Your task to perform on an android device: open chrome privacy settings Image 0: 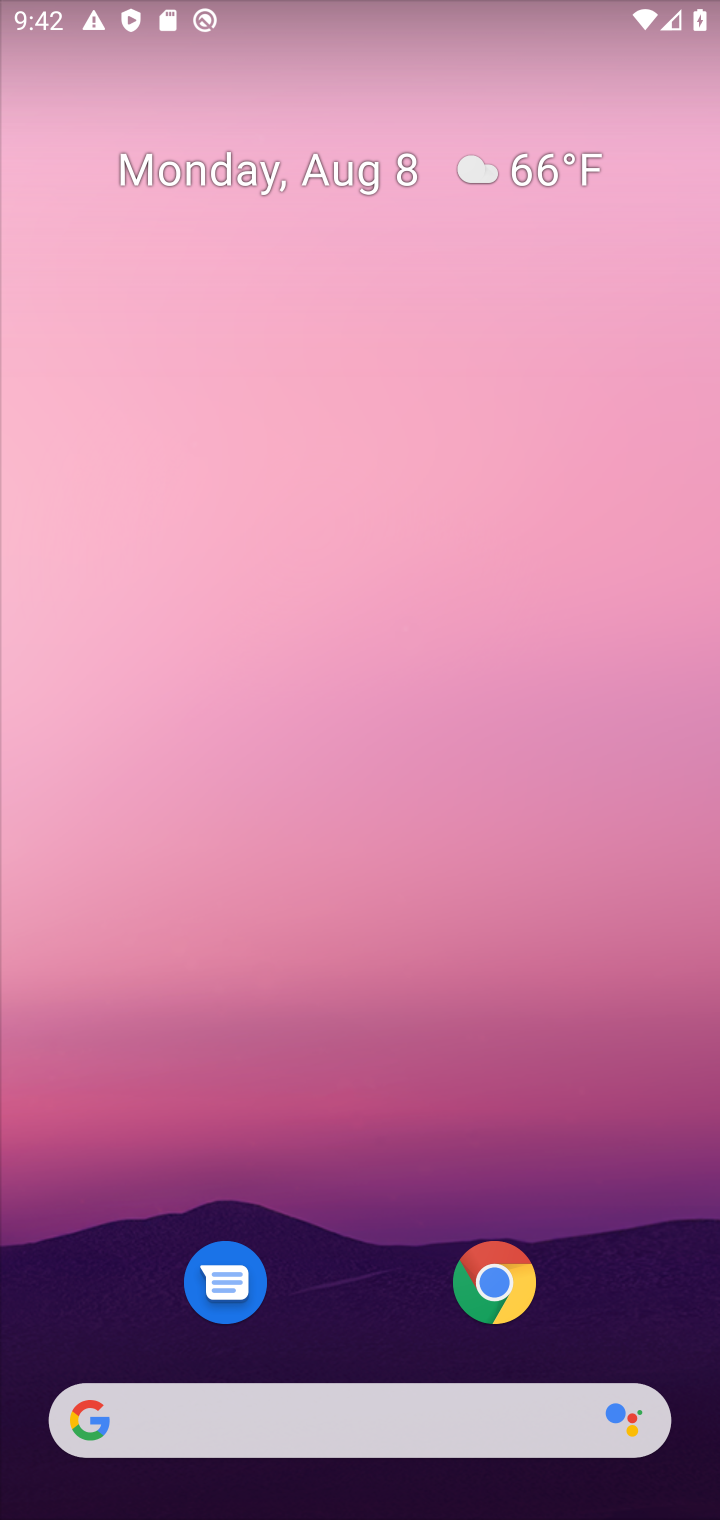
Step 0: click (483, 1276)
Your task to perform on an android device: open chrome privacy settings Image 1: 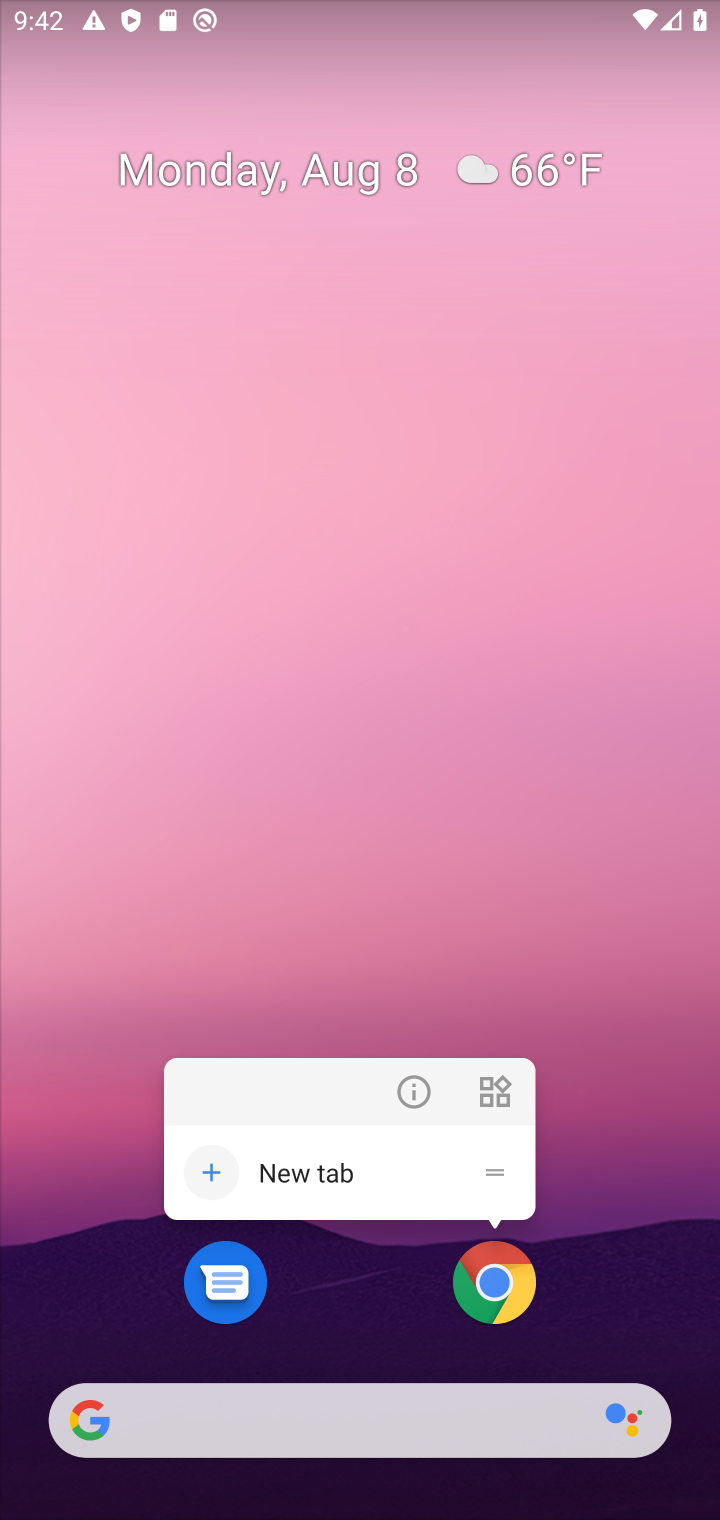
Step 1: click (483, 1276)
Your task to perform on an android device: open chrome privacy settings Image 2: 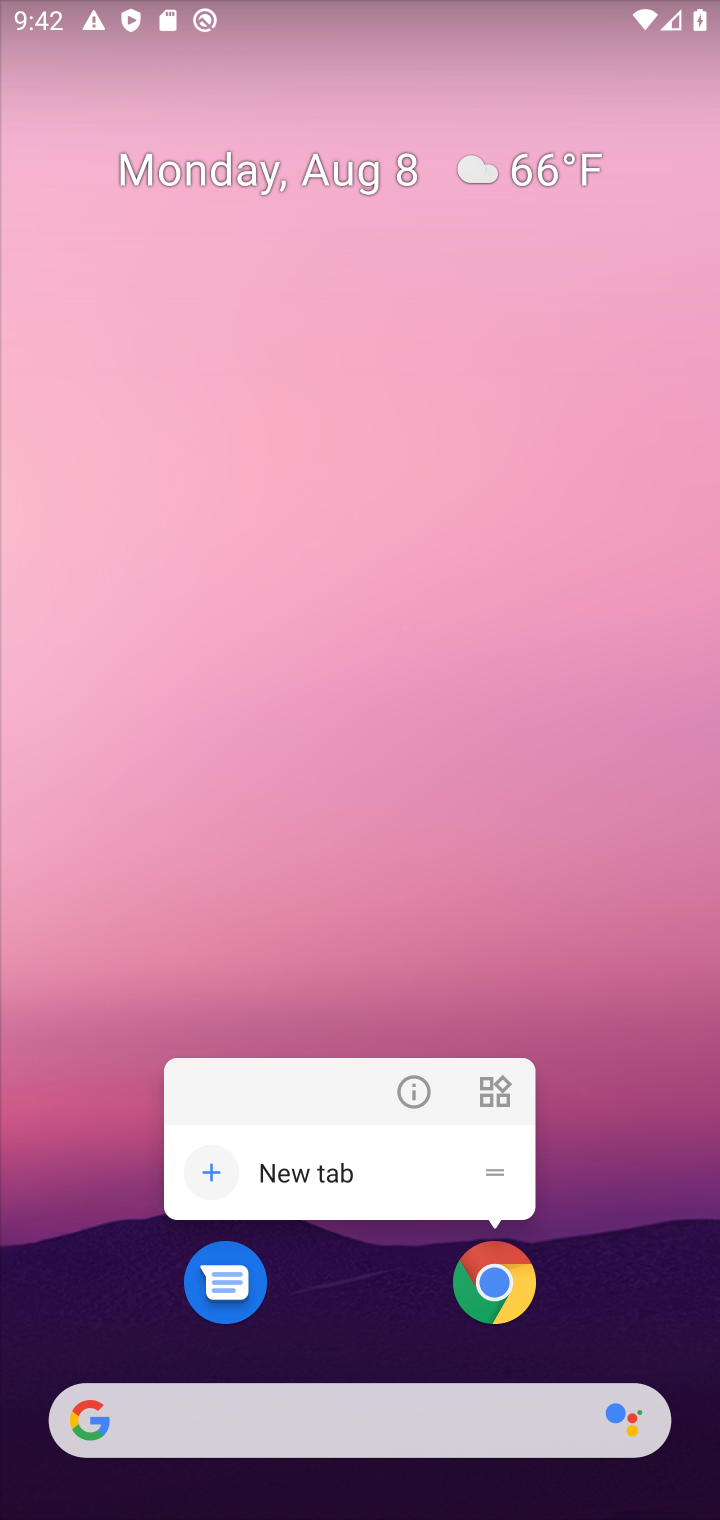
Step 2: click (483, 1276)
Your task to perform on an android device: open chrome privacy settings Image 3: 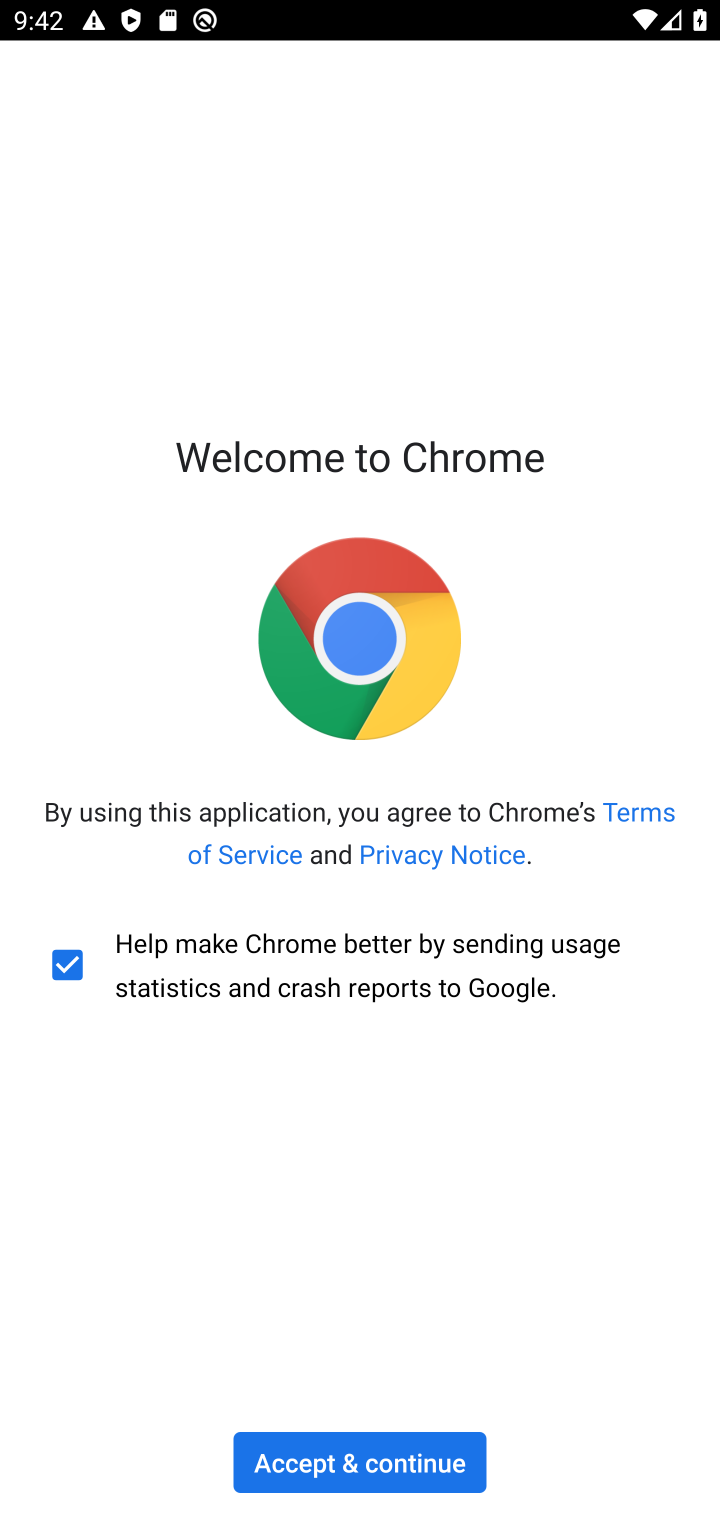
Step 3: click (400, 1457)
Your task to perform on an android device: open chrome privacy settings Image 4: 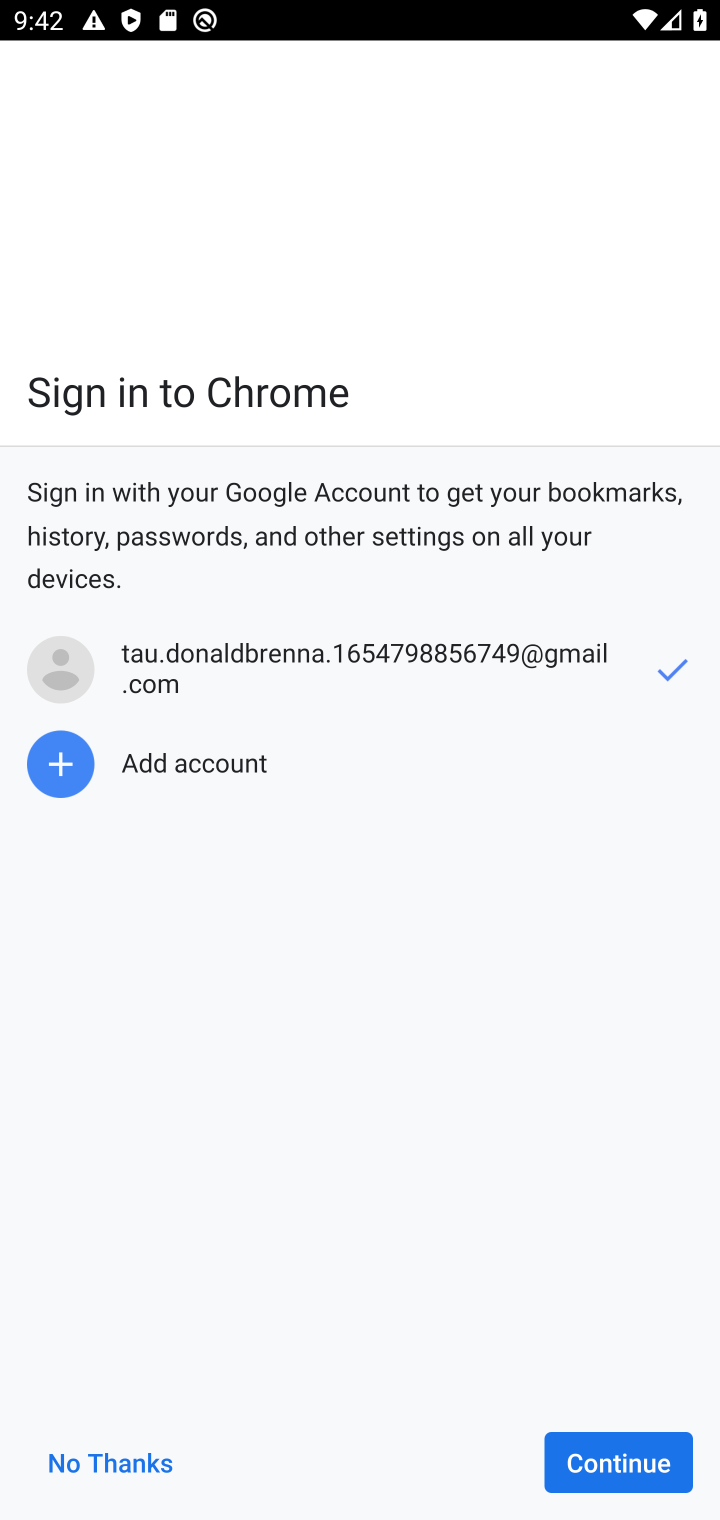
Step 4: click (601, 1453)
Your task to perform on an android device: open chrome privacy settings Image 5: 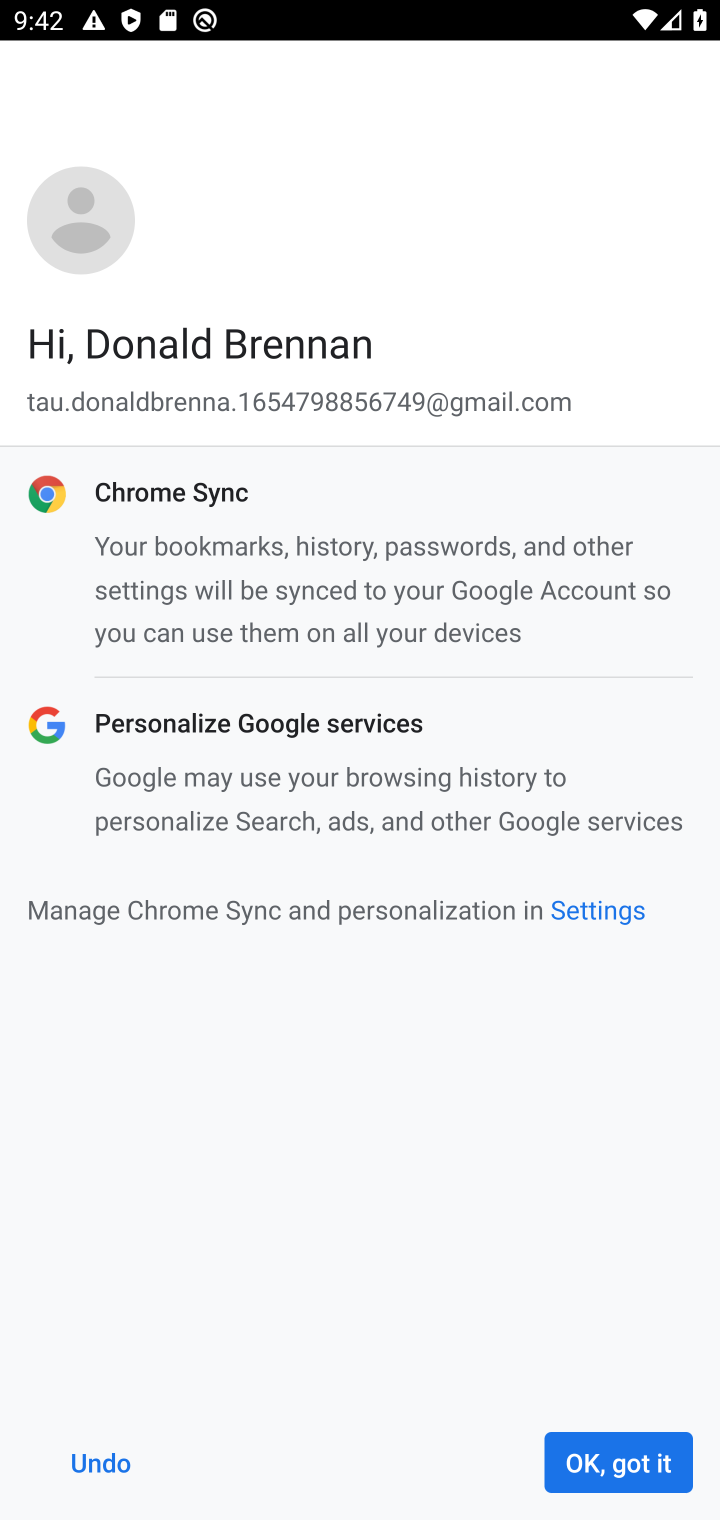
Step 5: click (601, 1453)
Your task to perform on an android device: open chrome privacy settings Image 6: 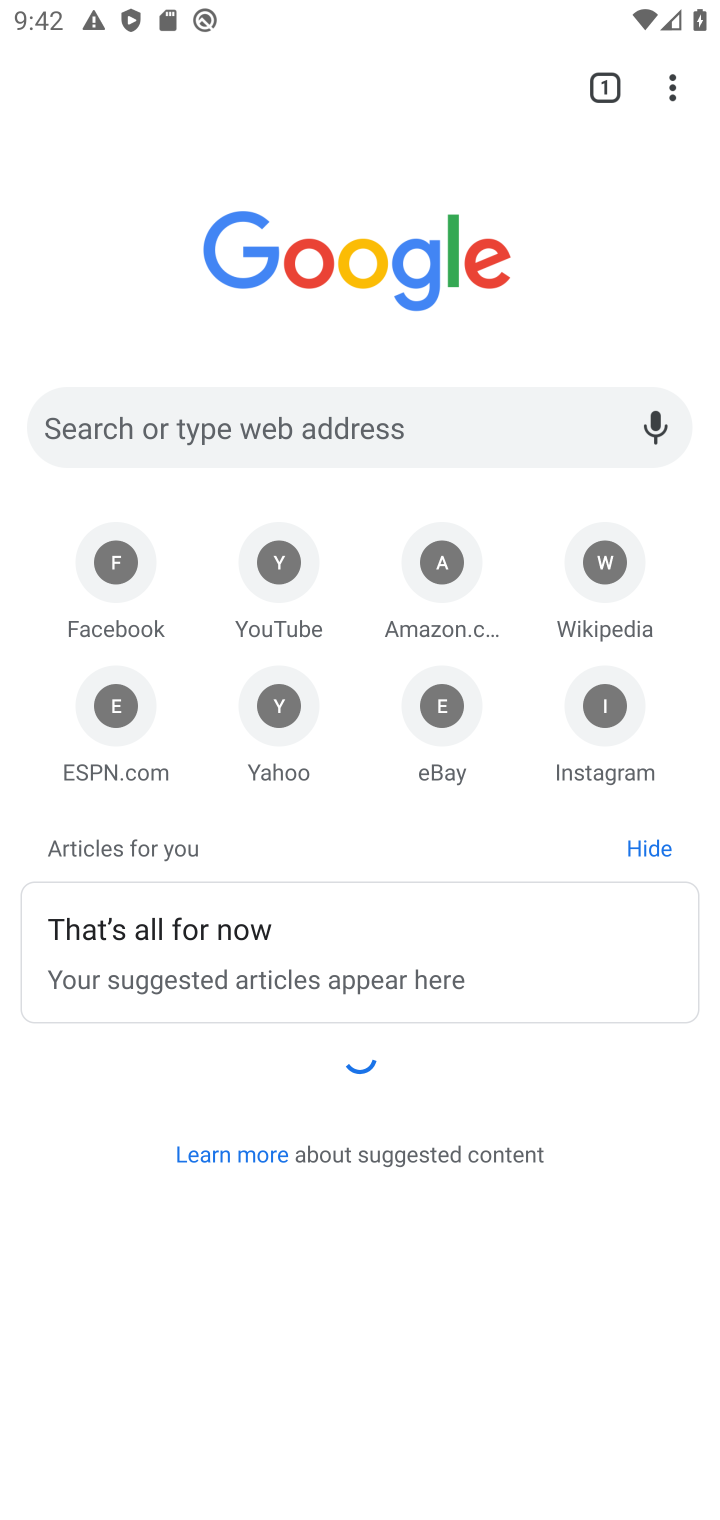
Step 6: click (692, 83)
Your task to perform on an android device: open chrome privacy settings Image 7: 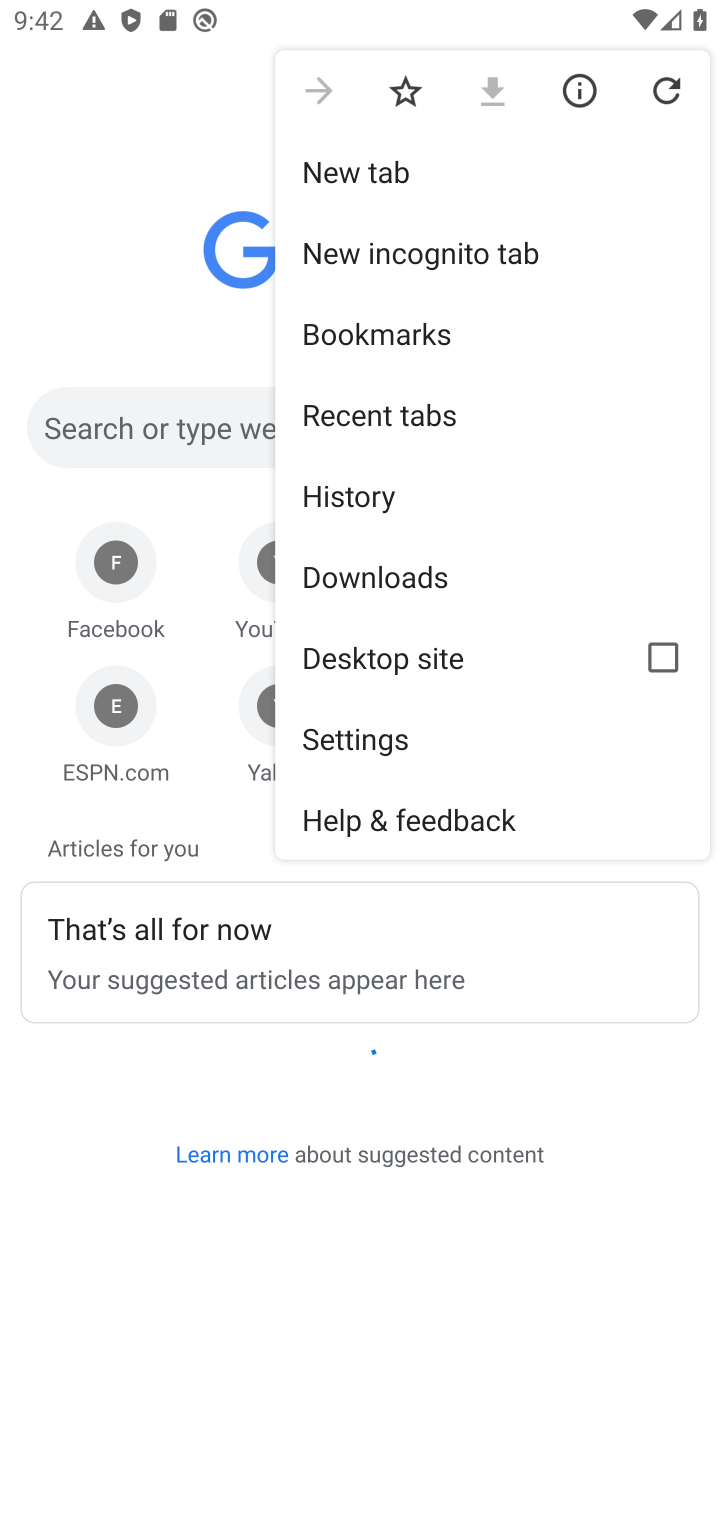
Step 7: click (450, 745)
Your task to perform on an android device: open chrome privacy settings Image 8: 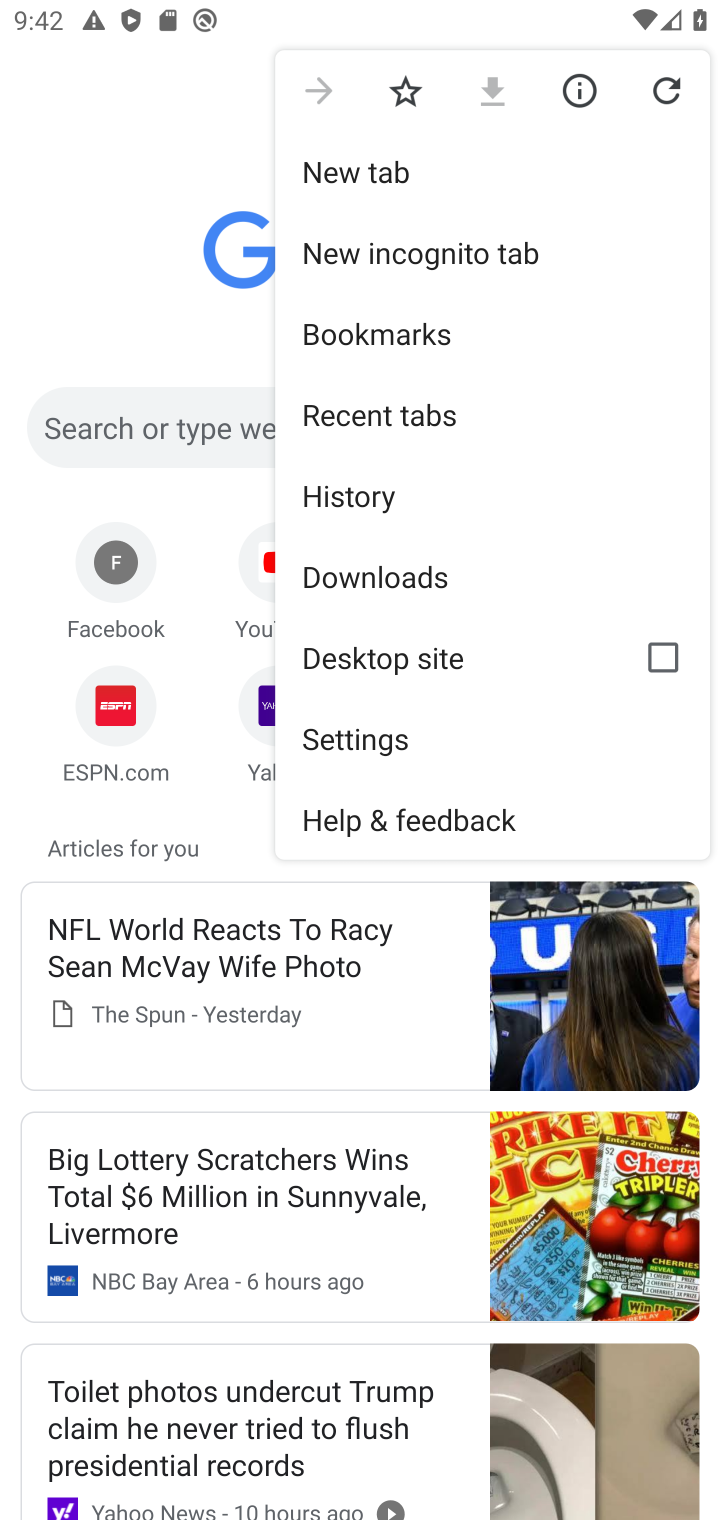
Step 8: click (336, 723)
Your task to perform on an android device: open chrome privacy settings Image 9: 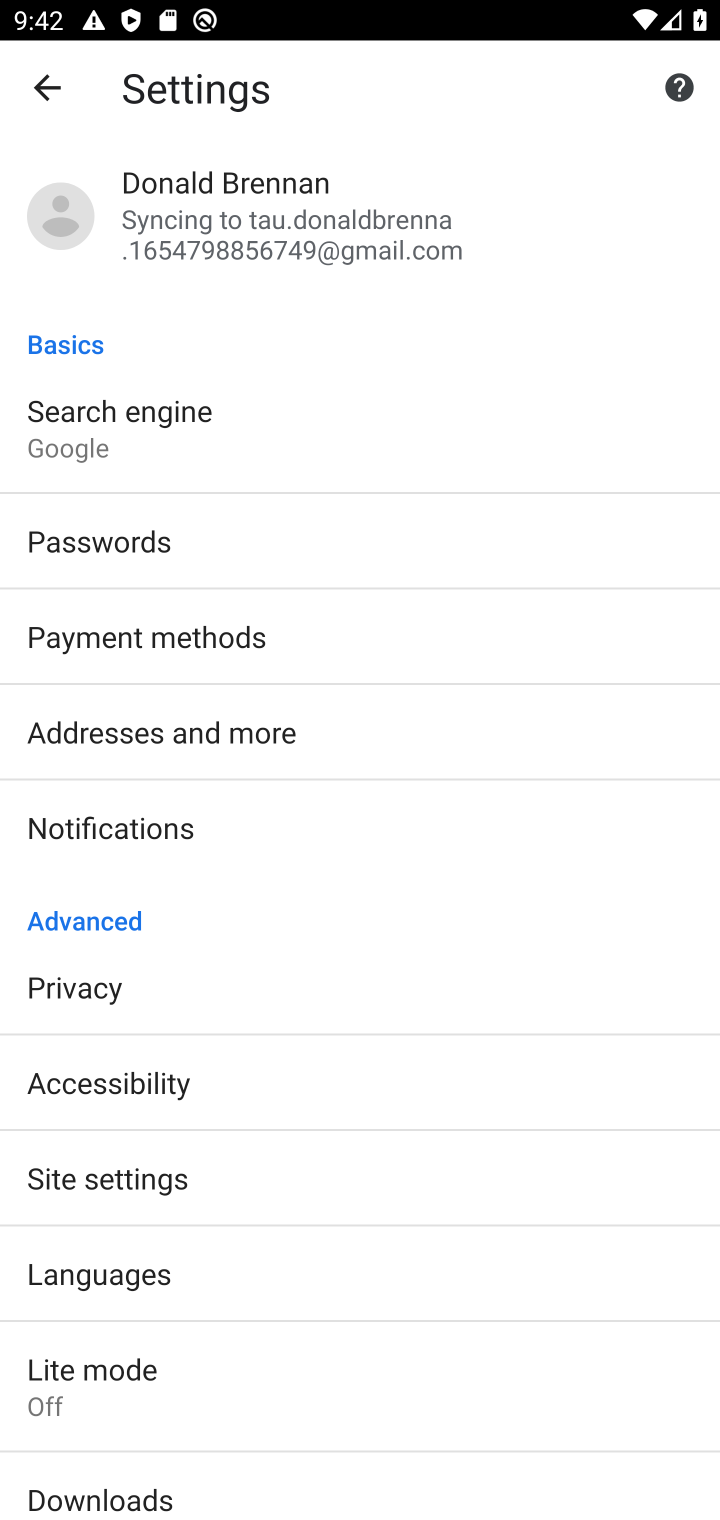
Step 9: click (117, 1000)
Your task to perform on an android device: open chrome privacy settings Image 10: 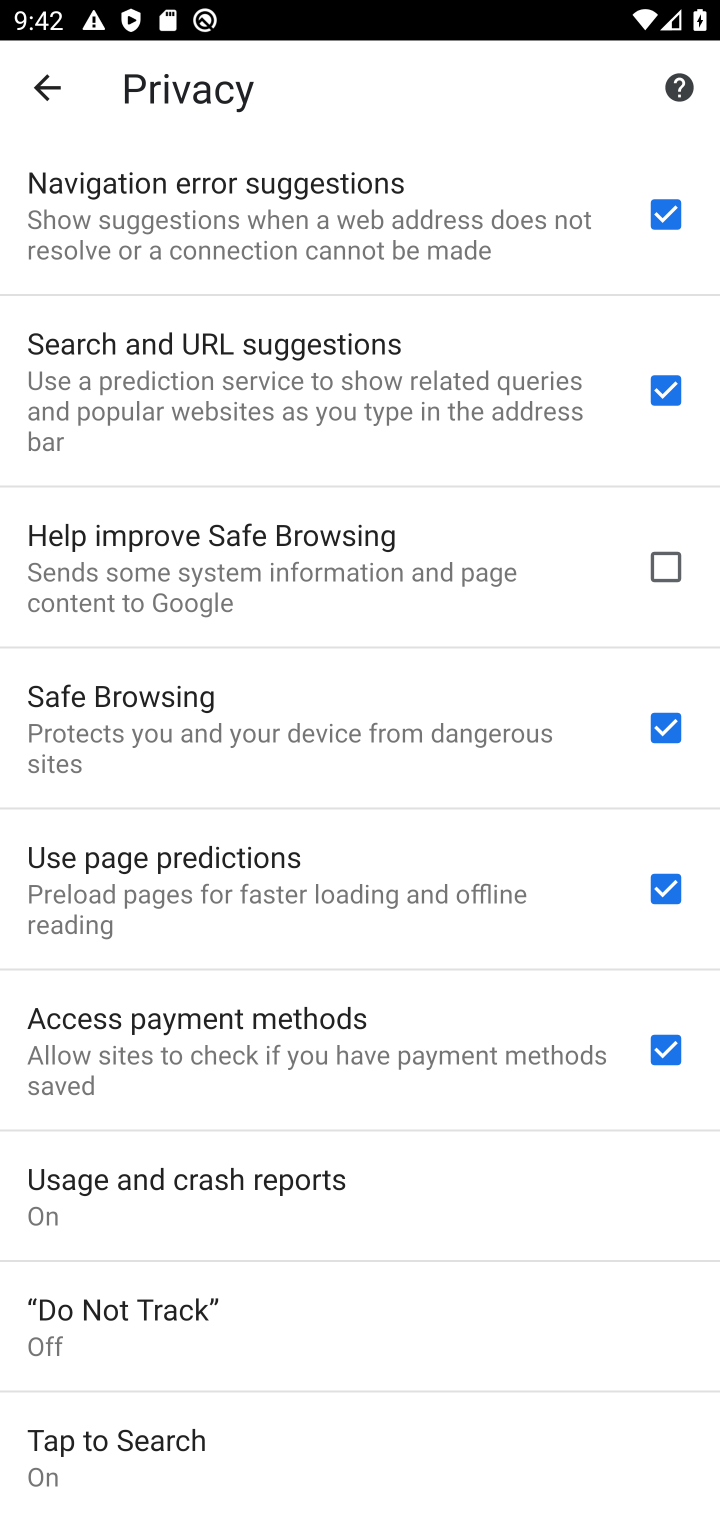
Step 10: task complete